Your task to perform on an android device: show emergency info Image 0: 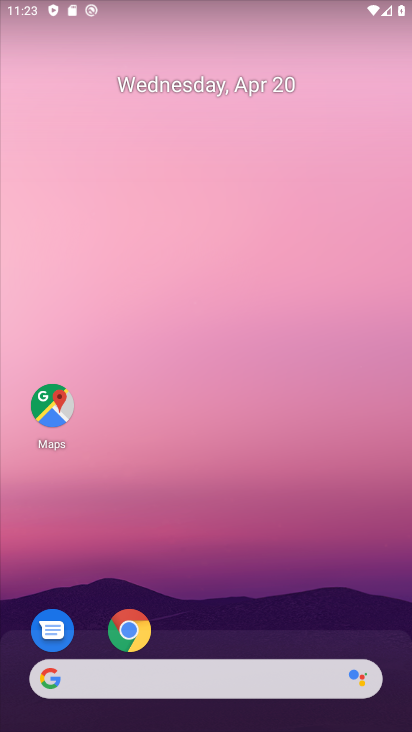
Step 0: drag from (228, 637) to (323, 179)
Your task to perform on an android device: show emergency info Image 1: 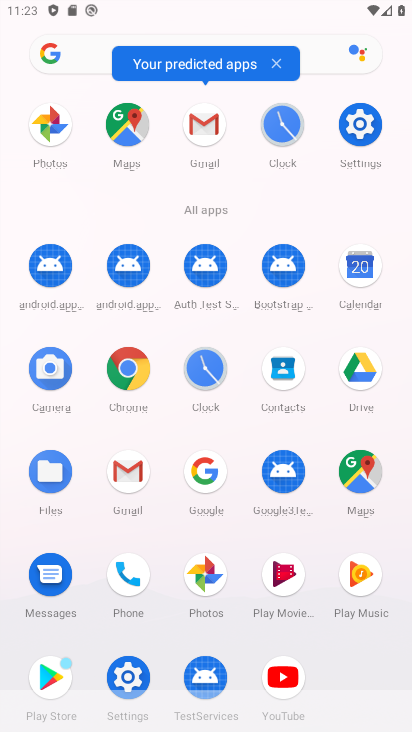
Step 1: click (127, 673)
Your task to perform on an android device: show emergency info Image 2: 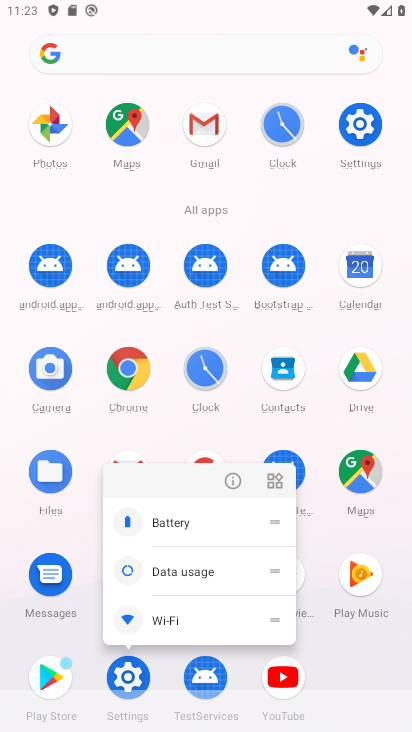
Step 2: click (127, 675)
Your task to perform on an android device: show emergency info Image 3: 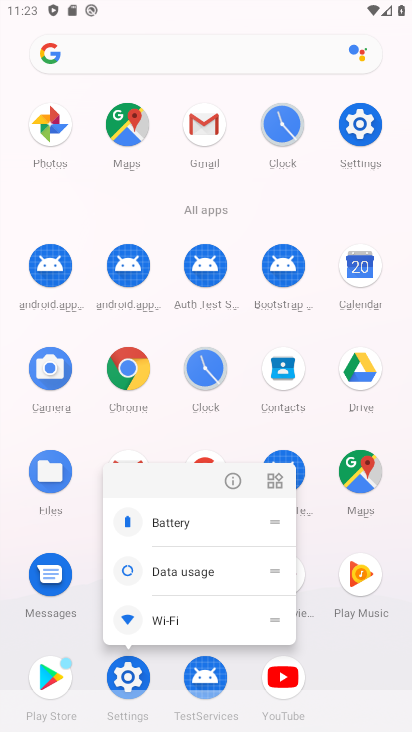
Step 3: click (127, 685)
Your task to perform on an android device: show emergency info Image 4: 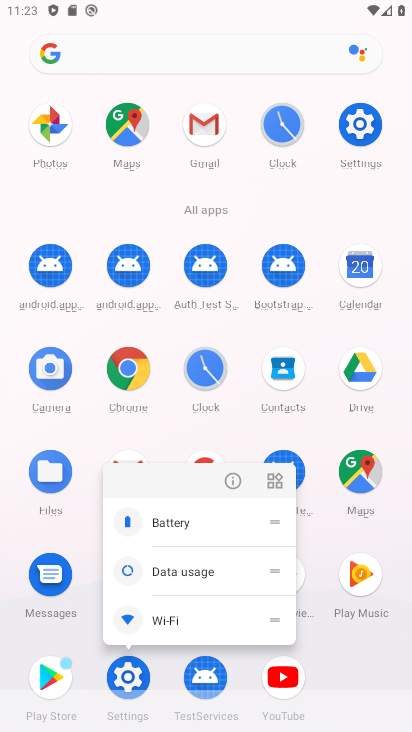
Step 4: click (131, 680)
Your task to perform on an android device: show emergency info Image 5: 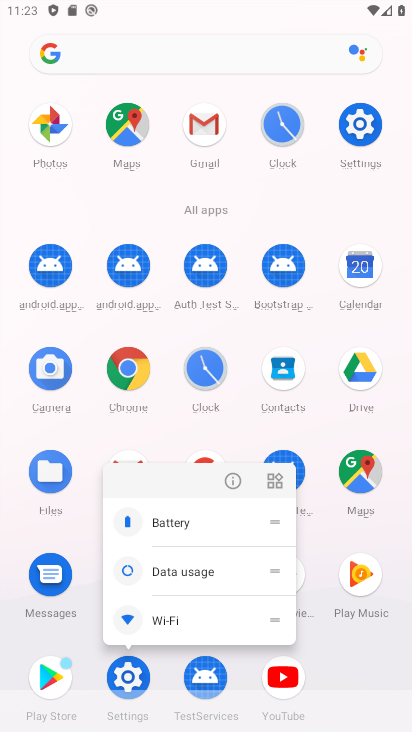
Step 5: click (130, 678)
Your task to perform on an android device: show emergency info Image 6: 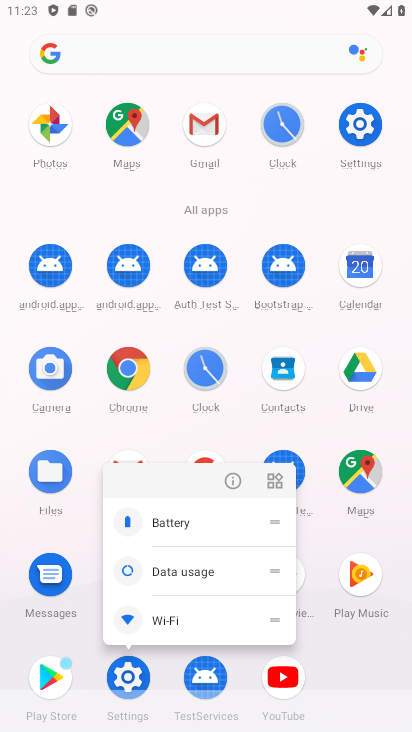
Step 6: click (132, 683)
Your task to perform on an android device: show emergency info Image 7: 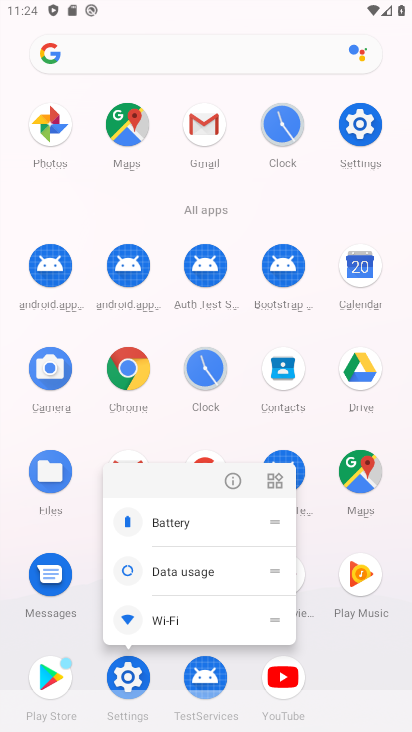
Step 7: click (357, 120)
Your task to perform on an android device: show emergency info Image 8: 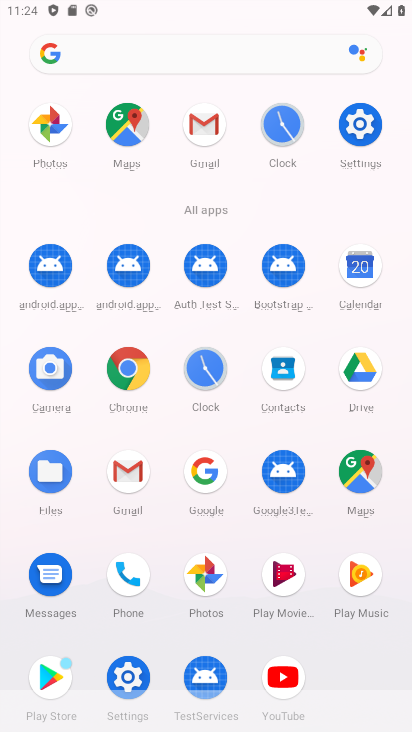
Step 8: click (367, 132)
Your task to perform on an android device: show emergency info Image 9: 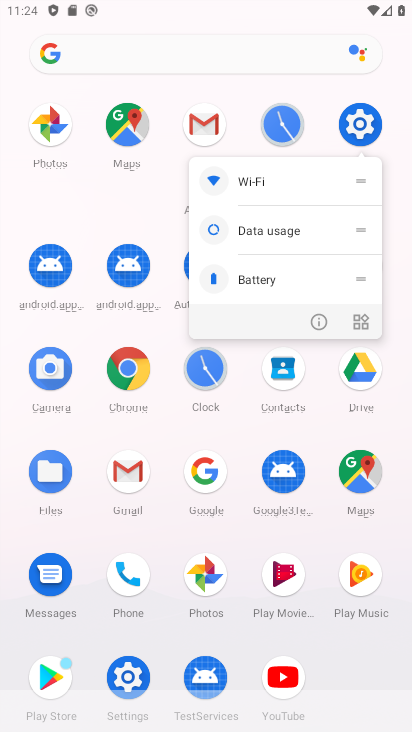
Step 9: click (368, 121)
Your task to perform on an android device: show emergency info Image 10: 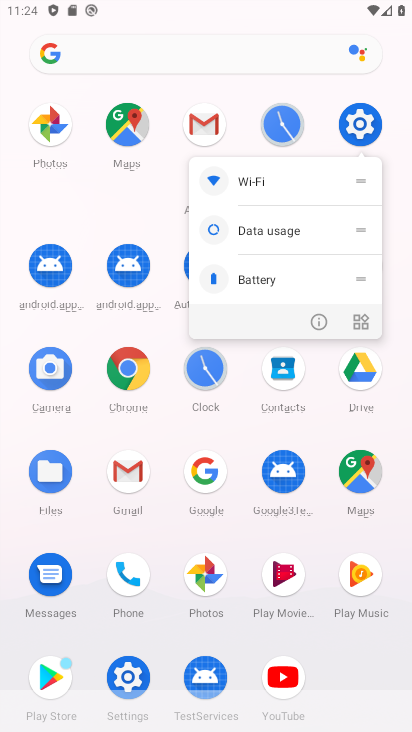
Step 10: click (366, 123)
Your task to perform on an android device: show emergency info Image 11: 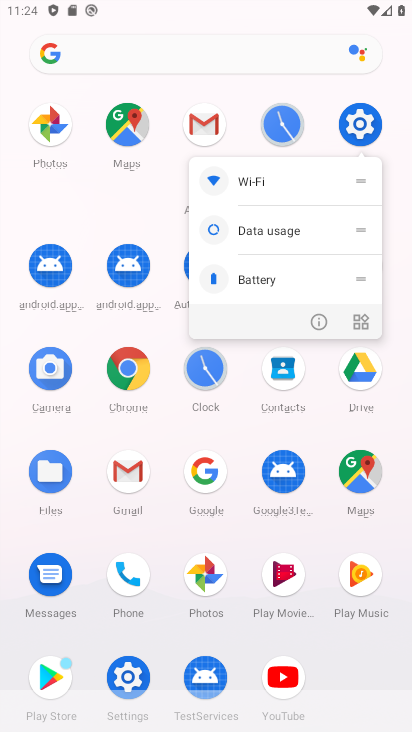
Step 11: click (357, 122)
Your task to perform on an android device: show emergency info Image 12: 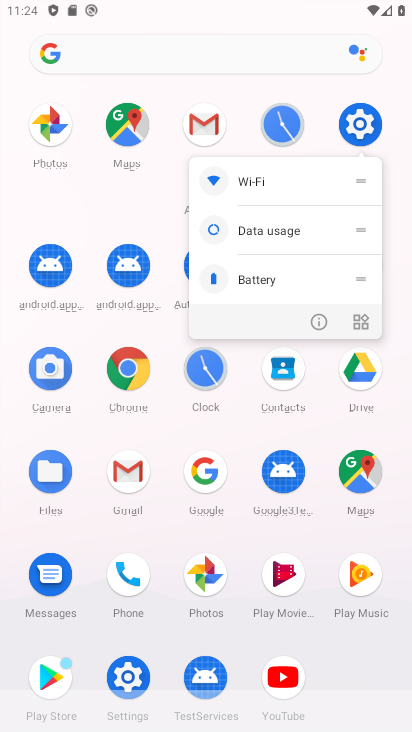
Step 12: click (366, 134)
Your task to perform on an android device: show emergency info Image 13: 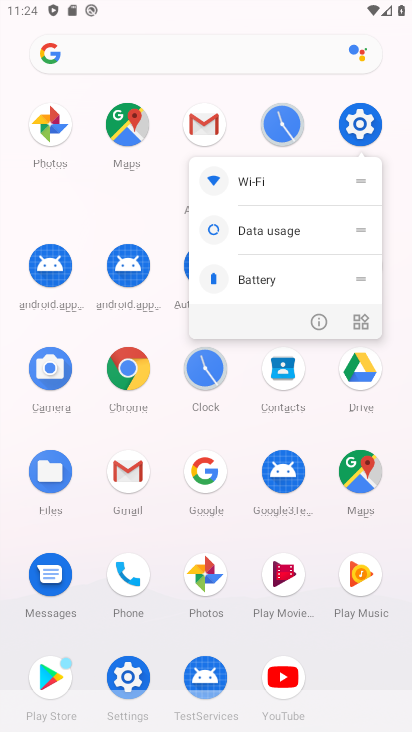
Step 13: click (349, 116)
Your task to perform on an android device: show emergency info Image 14: 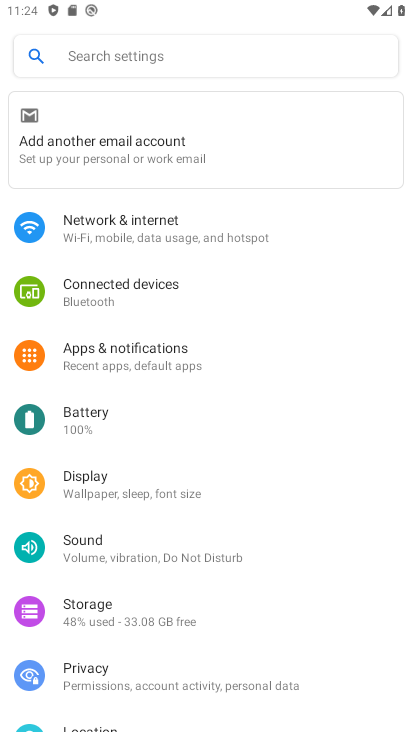
Step 14: drag from (216, 615) to (378, 187)
Your task to perform on an android device: show emergency info Image 15: 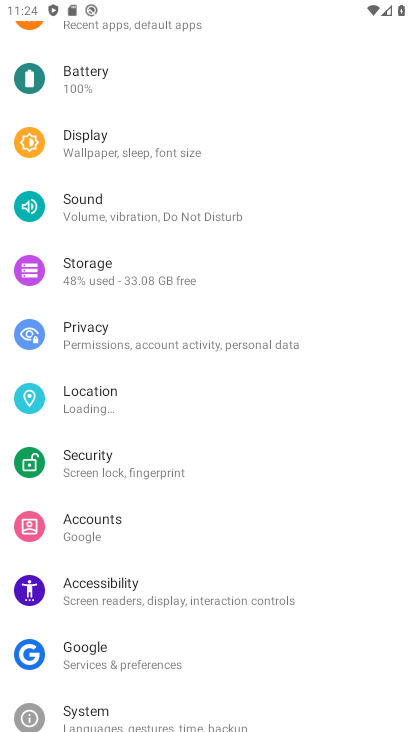
Step 15: drag from (195, 557) to (323, 165)
Your task to perform on an android device: show emergency info Image 16: 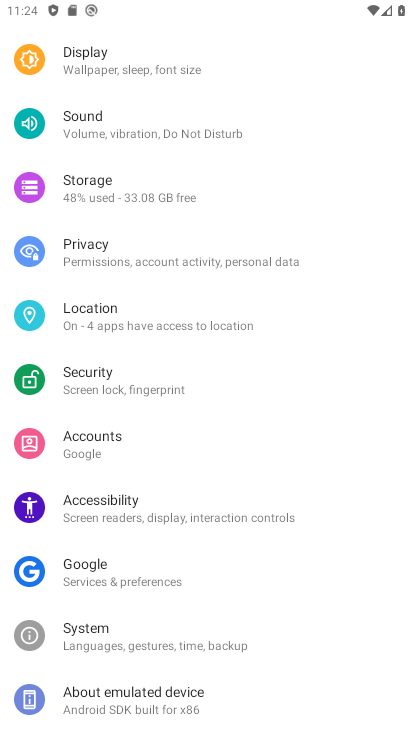
Step 16: click (204, 694)
Your task to perform on an android device: show emergency info Image 17: 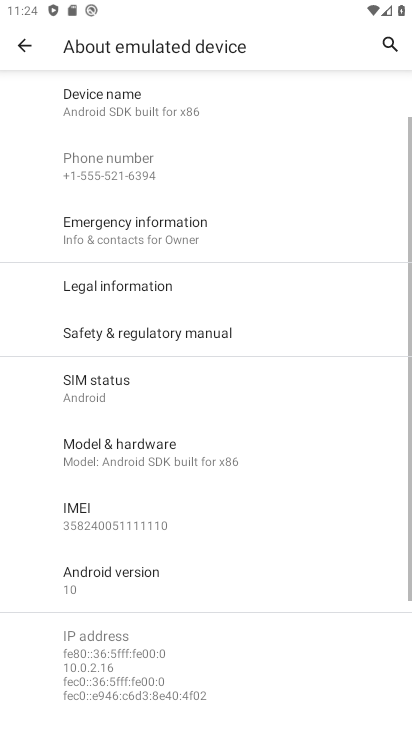
Step 17: click (223, 239)
Your task to perform on an android device: show emergency info Image 18: 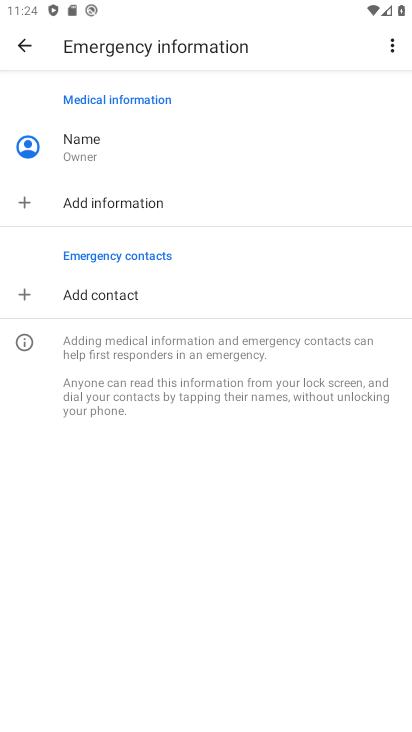
Step 18: task complete